Your task to perform on an android device: Show me popular games on the Play Store Image 0: 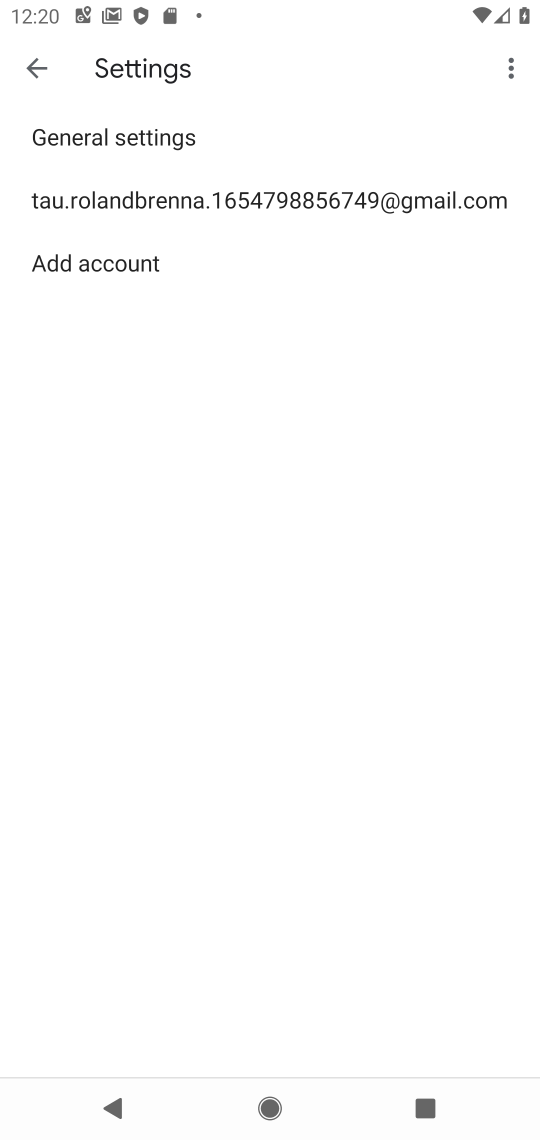
Step 0: press home button
Your task to perform on an android device: Show me popular games on the Play Store Image 1: 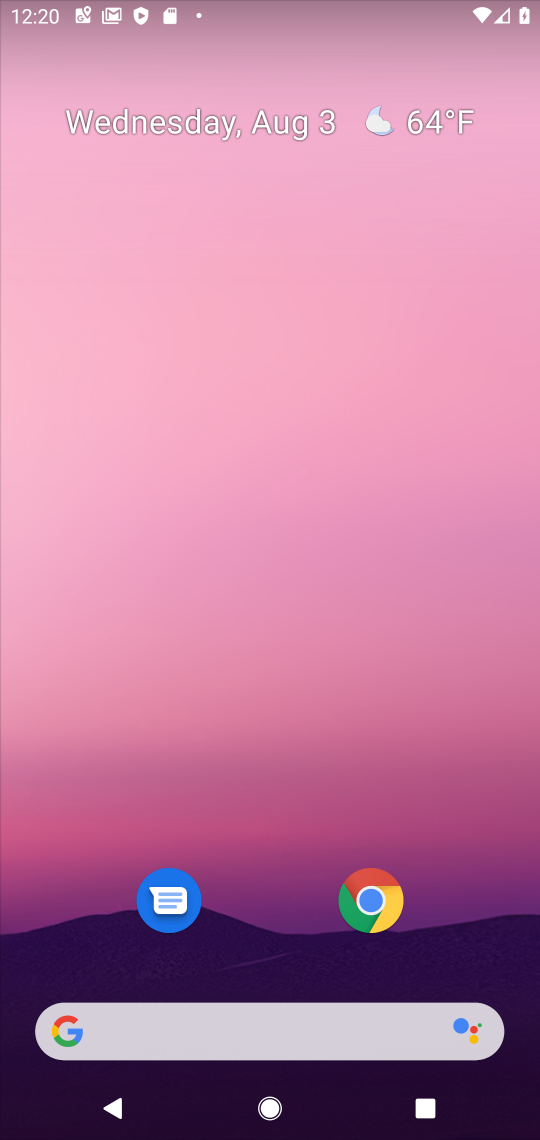
Step 1: drag from (273, 880) to (416, 26)
Your task to perform on an android device: Show me popular games on the Play Store Image 2: 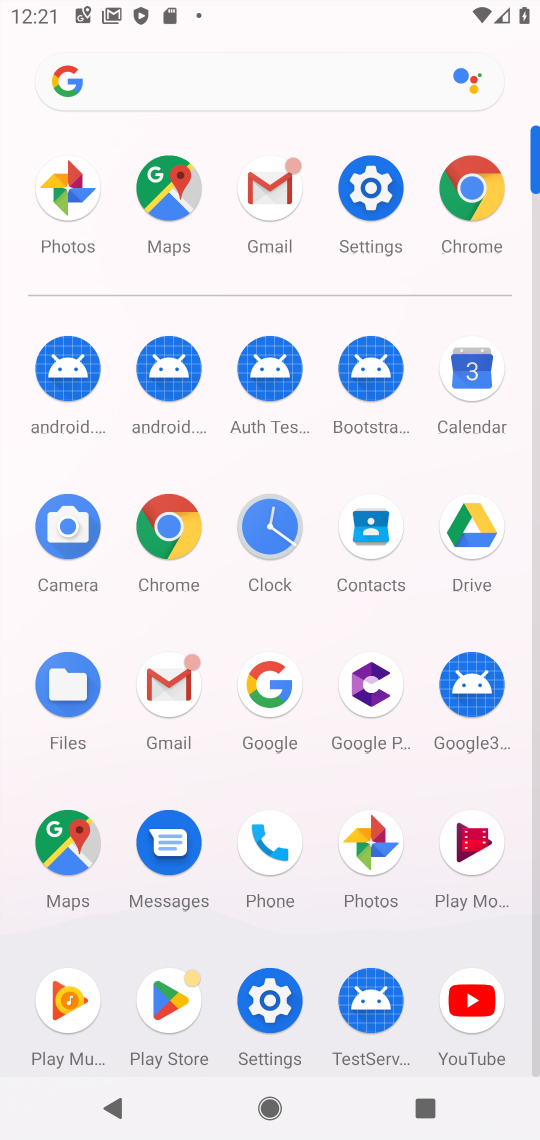
Step 2: click (161, 998)
Your task to perform on an android device: Show me popular games on the Play Store Image 3: 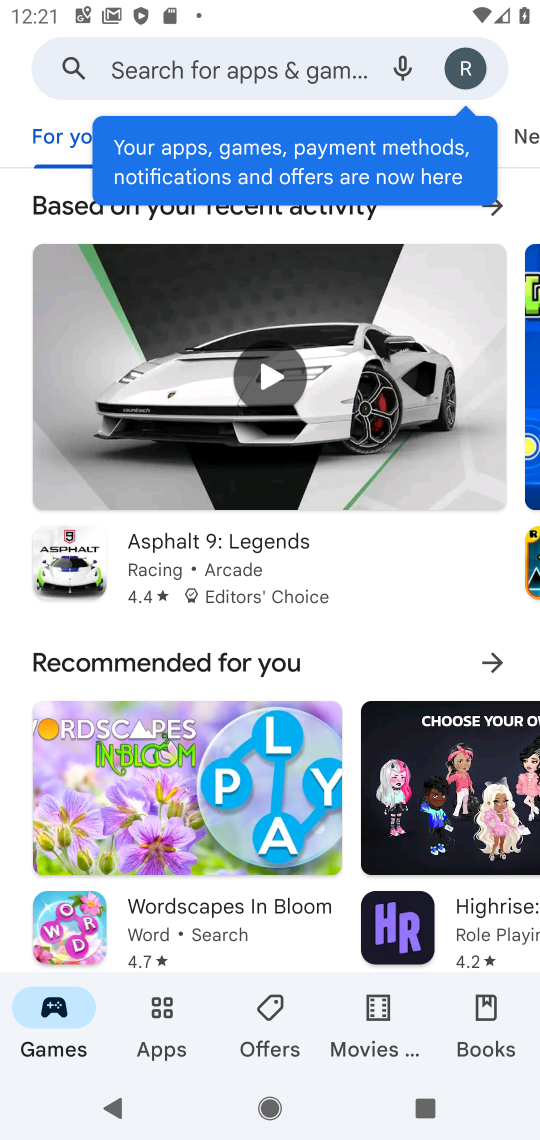
Step 3: task complete